Your task to perform on an android device: open app "Spotify" (install if not already installed) and enter user name: "infallible@icloud.com" and password: "implored" Image 0: 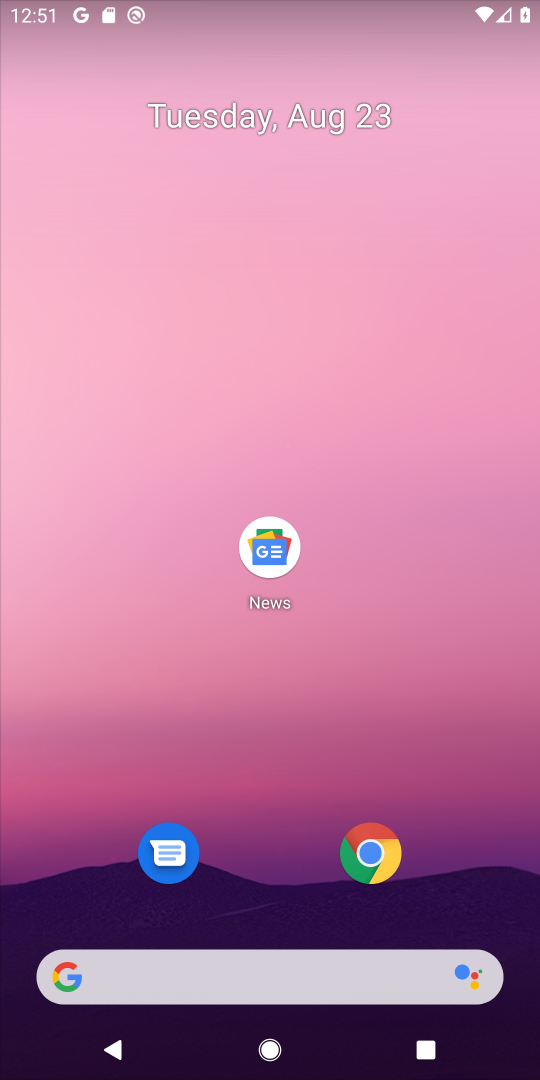
Step 0: drag from (283, 501) to (320, 166)
Your task to perform on an android device: open app "Spotify" (install if not already installed) and enter user name: "infallible@icloud.com" and password: "implored" Image 1: 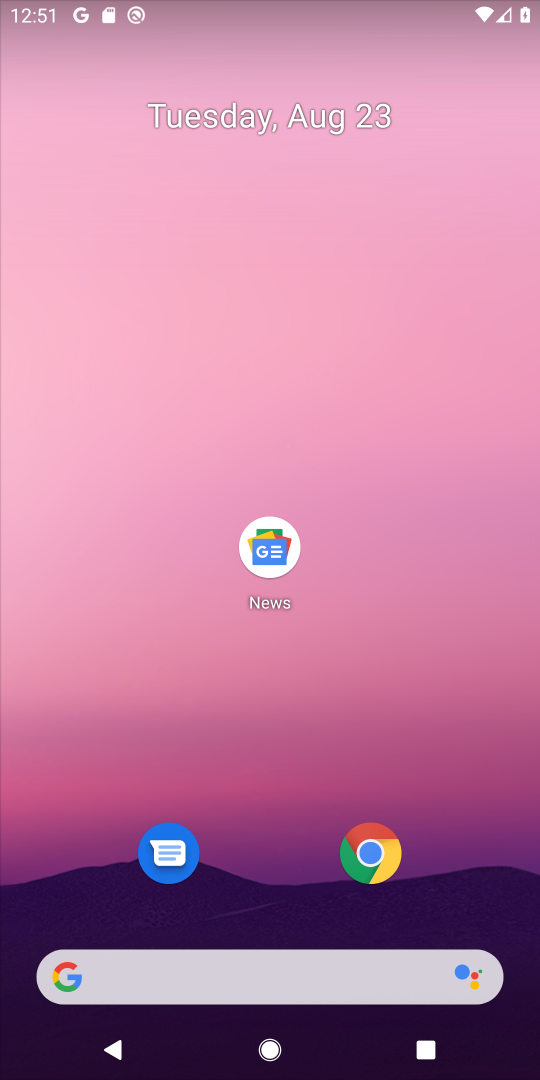
Step 1: drag from (438, 715) to (411, 46)
Your task to perform on an android device: open app "Spotify" (install if not already installed) and enter user name: "infallible@icloud.com" and password: "implored" Image 2: 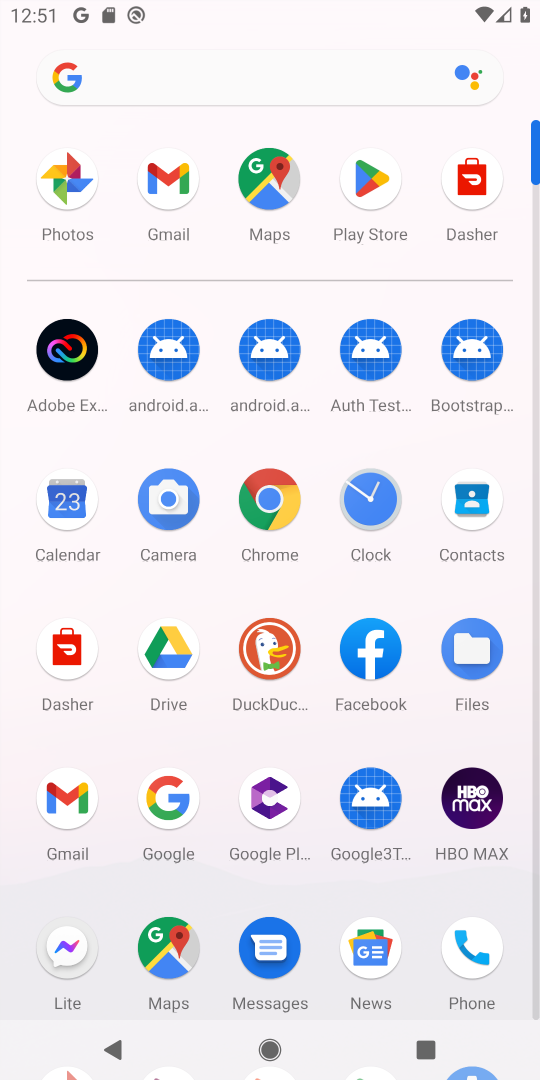
Step 2: drag from (312, 895) to (322, 483)
Your task to perform on an android device: open app "Spotify" (install if not already installed) and enter user name: "infallible@icloud.com" and password: "implored" Image 3: 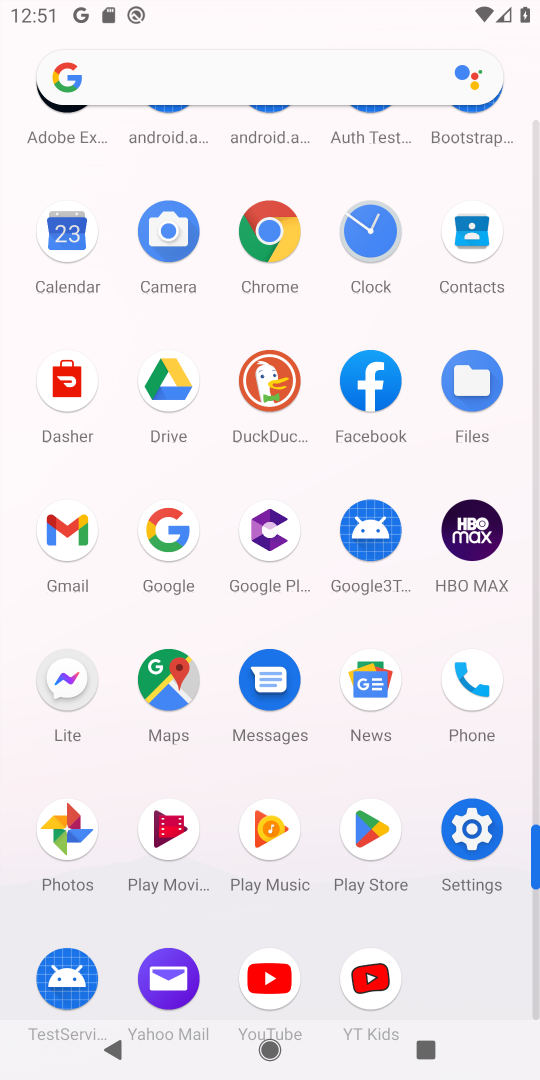
Step 3: click (377, 832)
Your task to perform on an android device: open app "Spotify" (install if not already installed) and enter user name: "infallible@icloud.com" and password: "implored" Image 4: 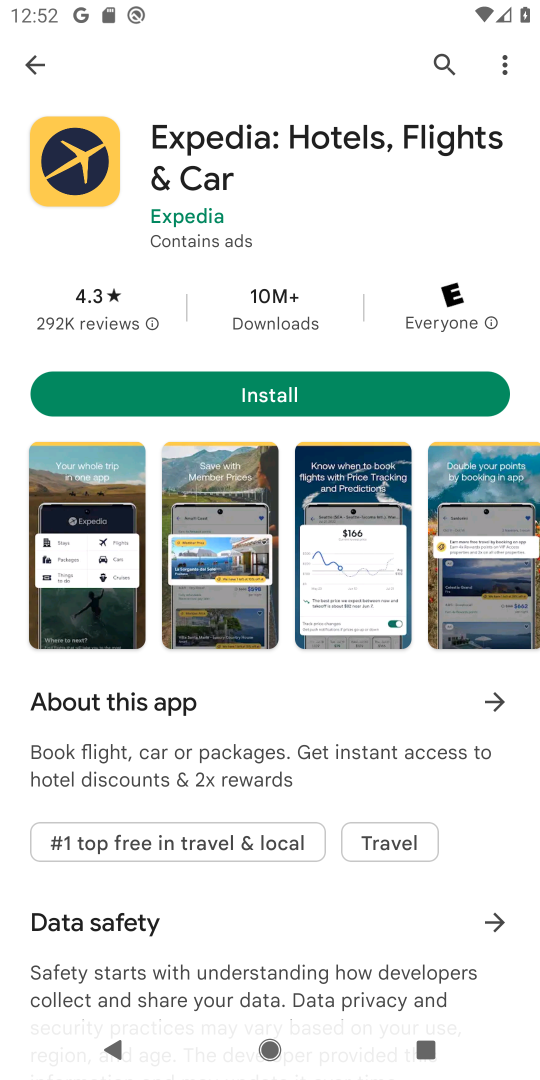
Step 4: click (443, 54)
Your task to perform on an android device: open app "Spotify" (install if not already installed) and enter user name: "infallible@icloud.com" and password: "implored" Image 5: 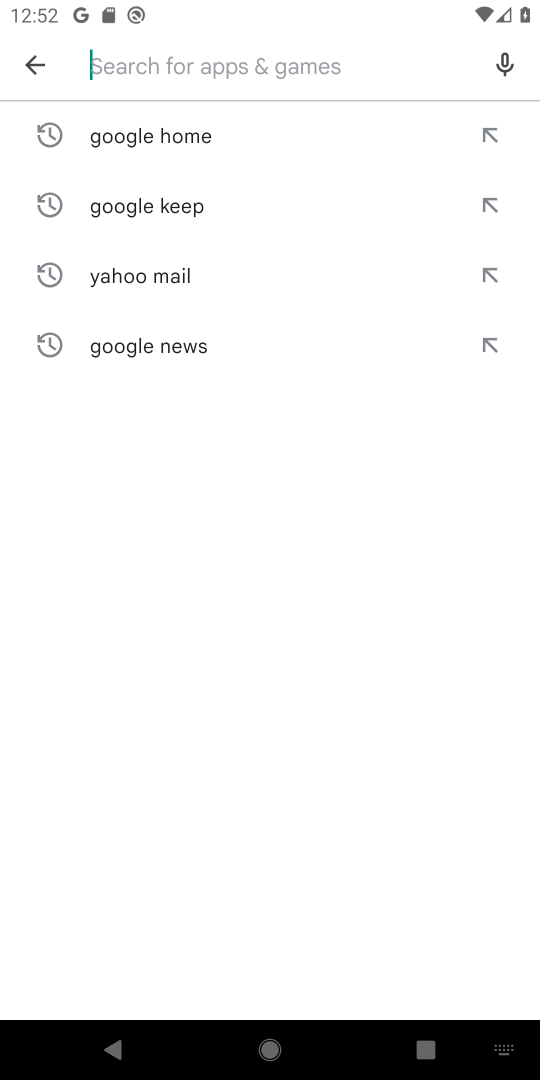
Step 5: type "Spotify"
Your task to perform on an android device: open app "Spotify" (install if not already installed) and enter user name: "infallible@icloud.com" and password: "implored" Image 6: 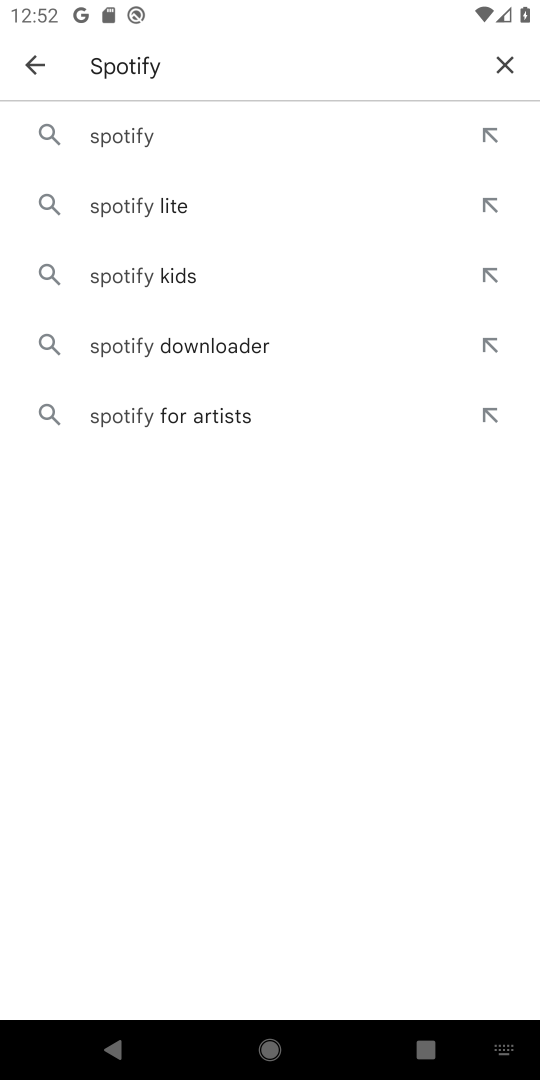
Step 6: click (125, 129)
Your task to perform on an android device: open app "Spotify" (install if not already installed) and enter user name: "infallible@icloud.com" and password: "implored" Image 7: 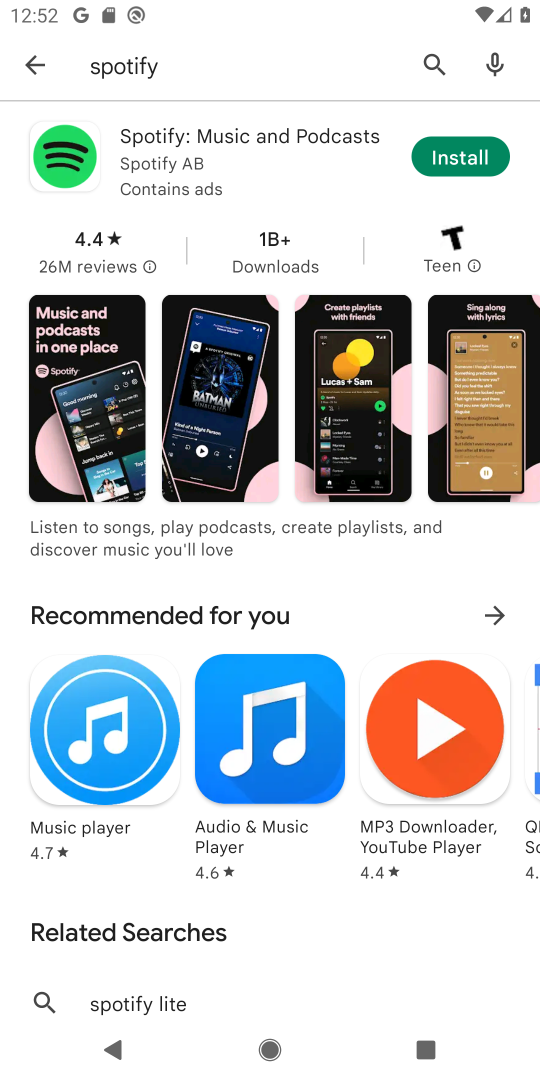
Step 7: click (457, 157)
Your task to perform on an android device: open app "Spotify" (install if not already installed) and enter user name: "infallible@icloud.com" and password: "implored" Image 8: 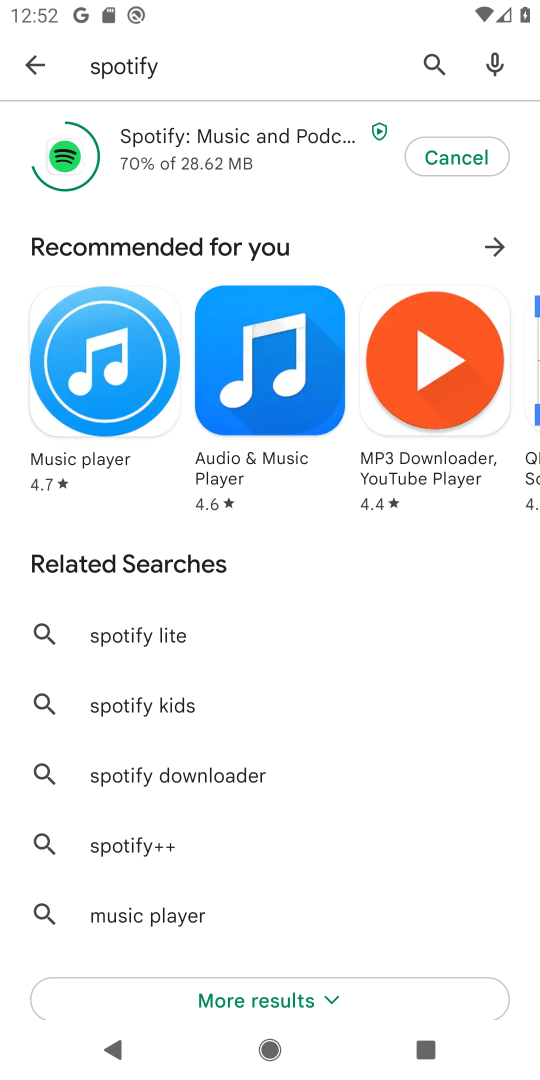
Step 8: click (215, 140)
Your task to perform on an android device: open app "Spotify" (install if not already installed) and enter user name: "infallible@icloud.com" and password: "implored" Image 9: 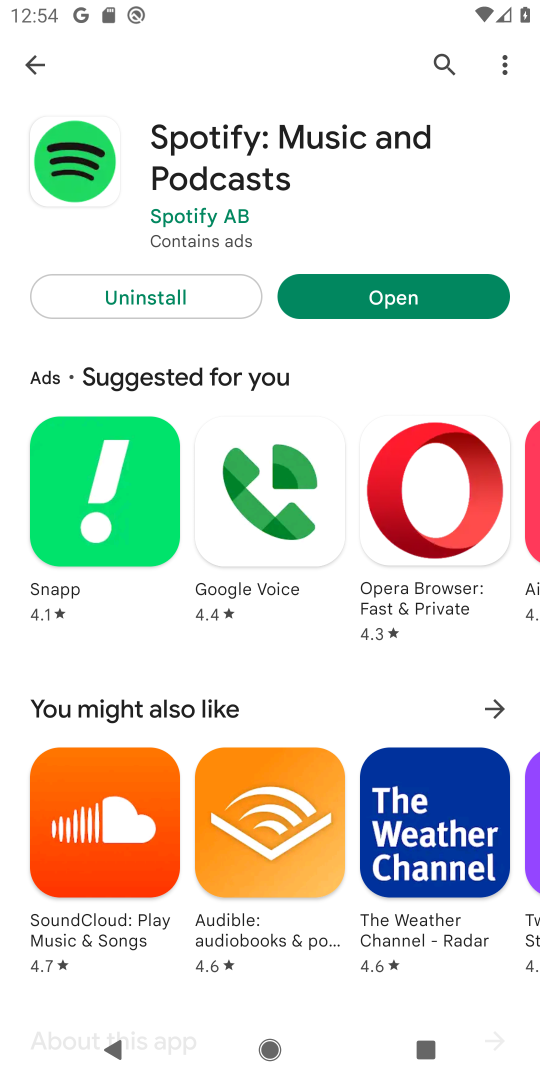
Step 9: click (403, 294)
Your task to perform on an android device: open app "Spotify" (install if not already installed) and enter user name: "infallible@icloud.com" and password: "implored" Image 10: 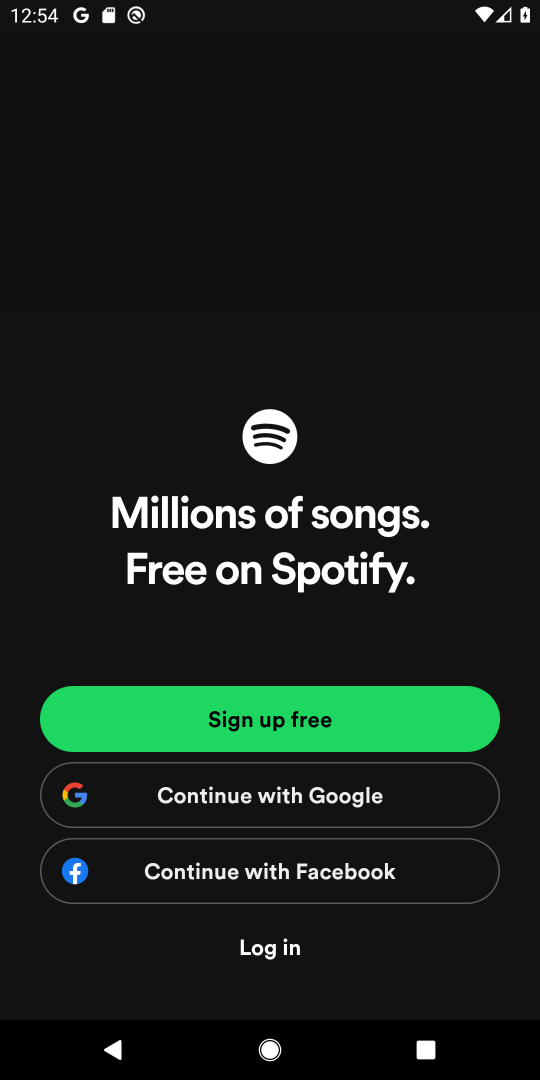
Step 10: click (265, 952)
Your task to perform on an android device: open app "Spotify" (install if not already installed) and enter user name: "infallible@icloud.com" and password: "implored" Image 11: 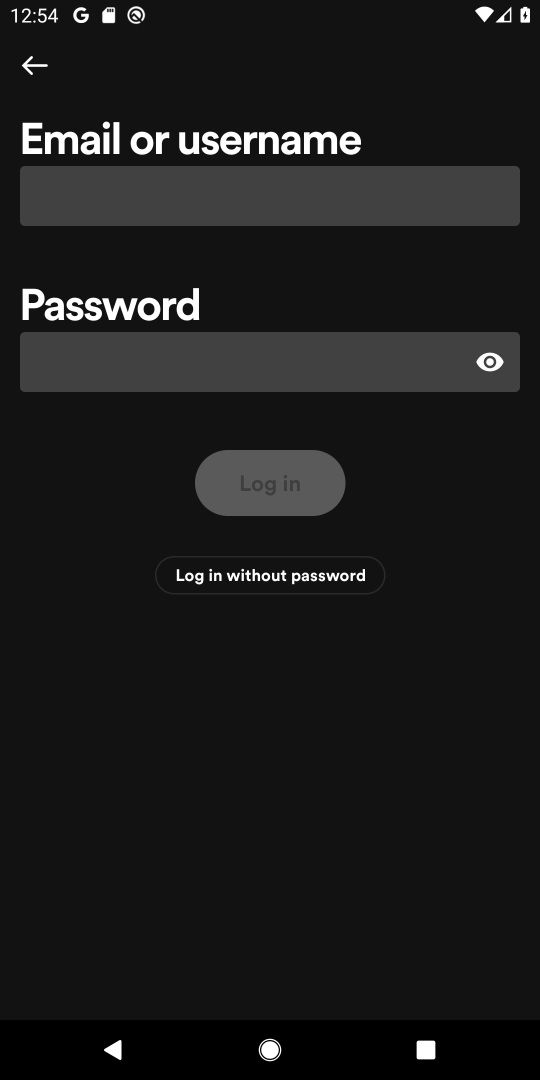
Step 11: click (184, 186)
Your task to perform on an android device: open app "Spotify" (install if not already installed) and enter user name: "infallible@icloud.com" and password: "implored" Image 12: 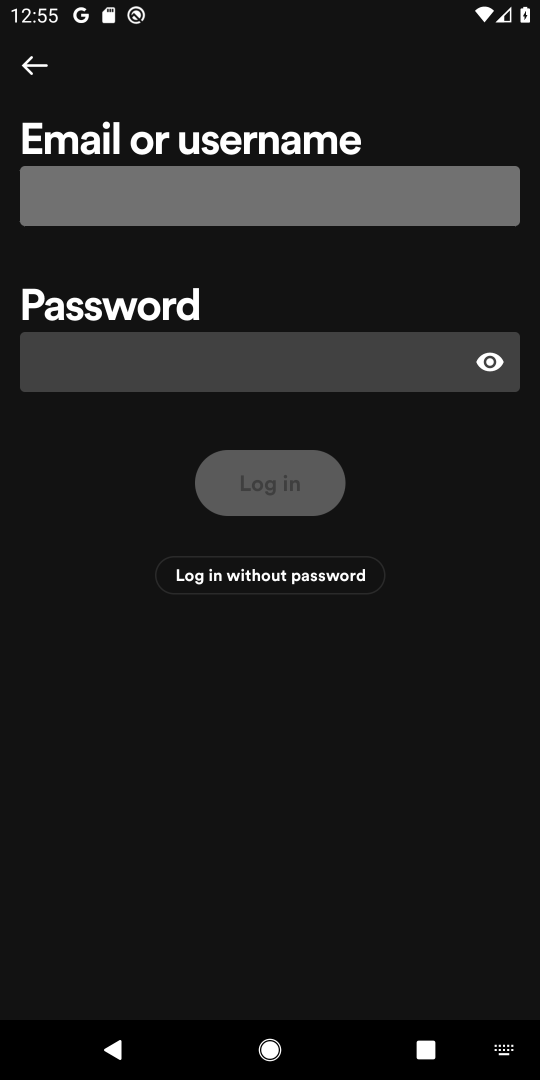
Step 12: type "infallible@icloud.com"
Your task to perform on an android device: open app "Spotify" (install if not already installed) and enter user name: "infallible@icloud.com" and password: "implored" Image 13: 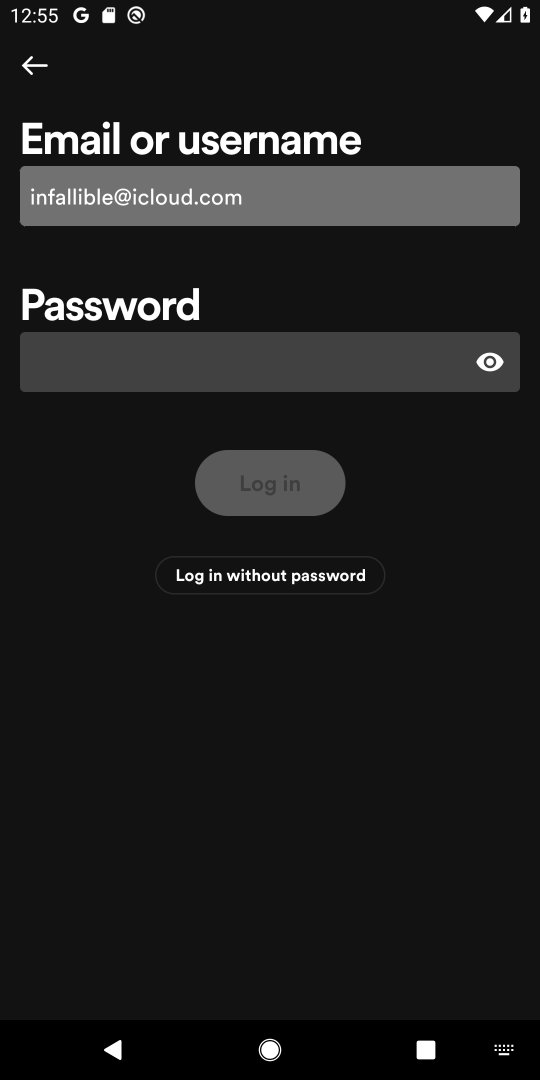
Step 13: click (156, 358)
Your task to perform on an android device: open app "Spotify" (install if not already installed) and enter user name: "infallible@icloud.com" and password: "implored" Image 14: 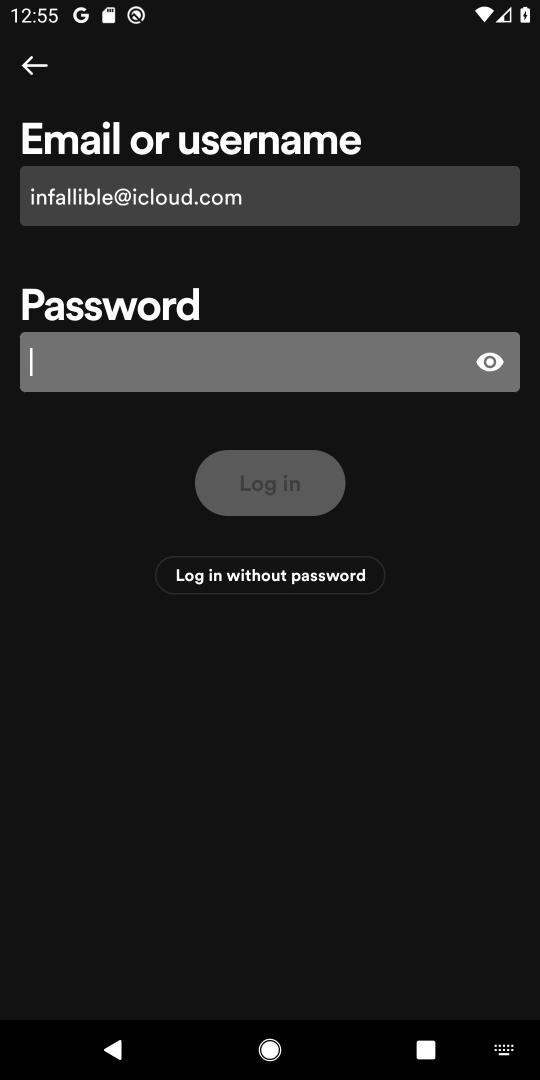
Step 14: type "implored"
Your task to perform on an android device: open app "Spotify" (install if not already installed) and enter user name: "infallible@icloud.com" and password: "implored" Image 15: 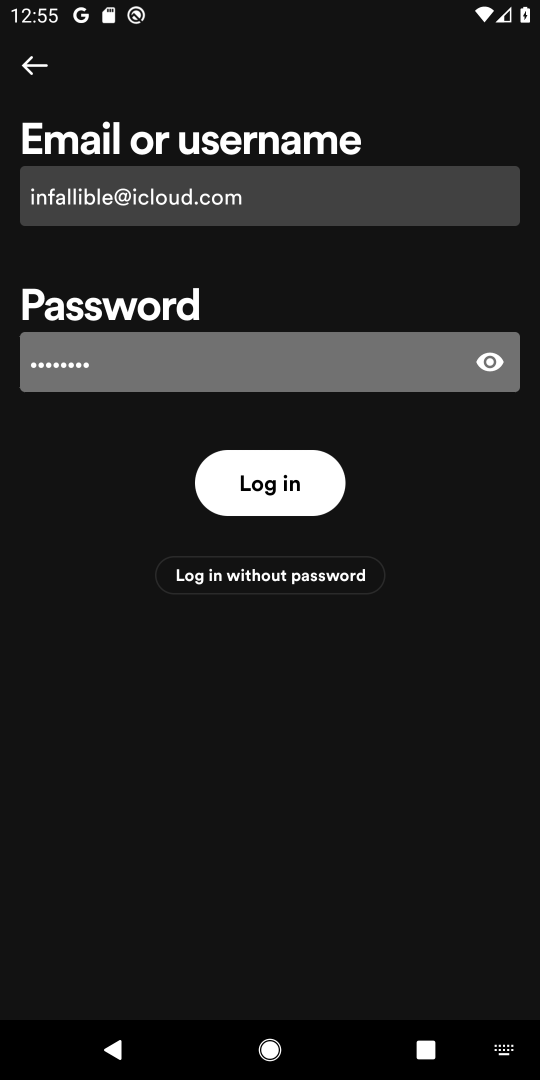
Step 15: task complete